Your task to perform on an android device: change keyboard looks Image 0: 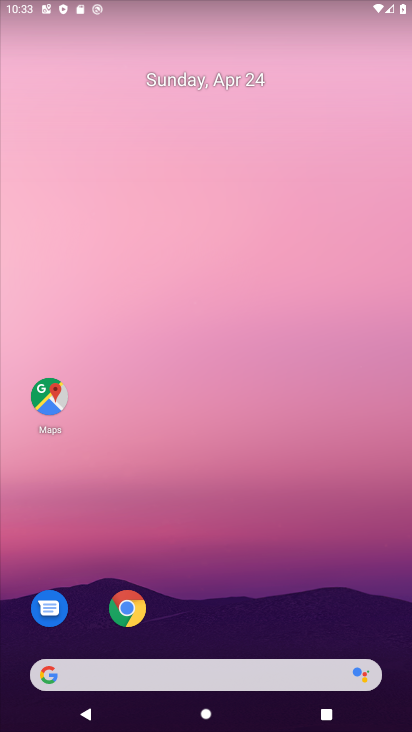
Step 0: drag from (214, 584) to (166, 21)
Your task to perform on an android device: change keyboard looks Image 1: 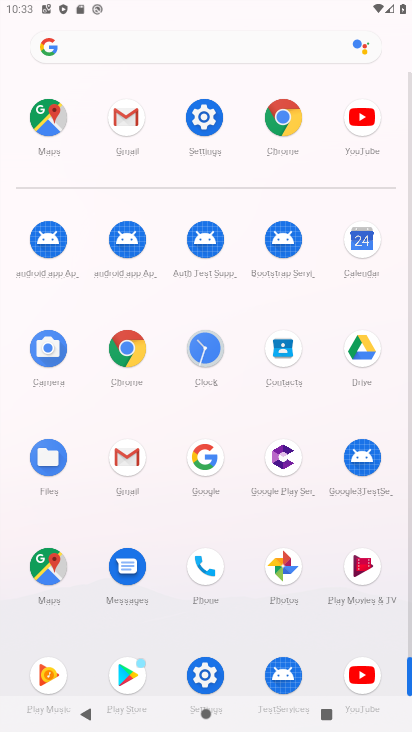
Step 1: drag from (5, 524) to (1, 235)
Your task to perform on an android device: change keyboard looks Image 2: 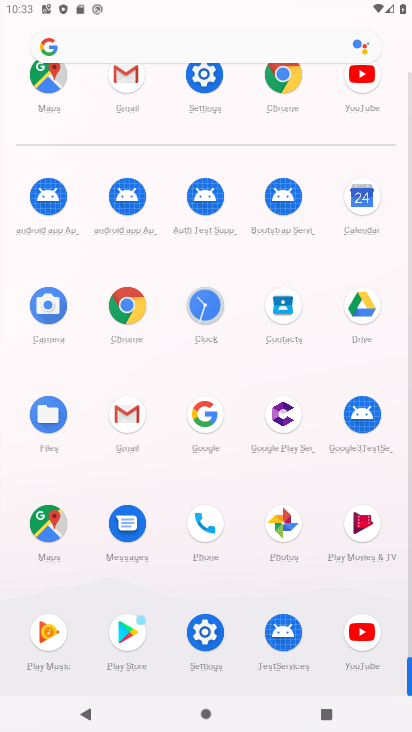
Step 2: drag from (15, 577) to (10, 352)
Your task to perform on an android device: change keyboard looks Image 3: 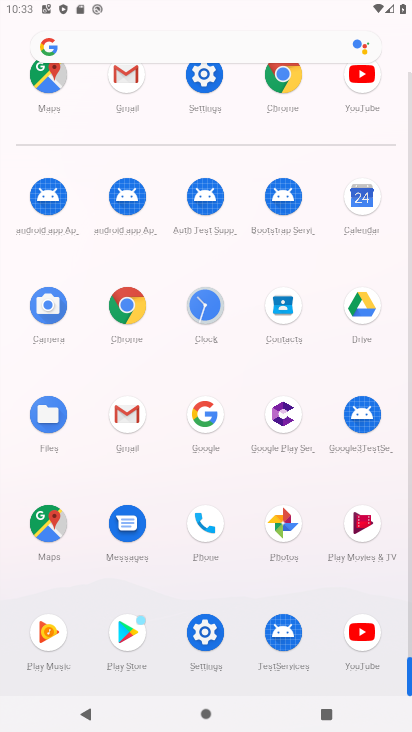
Step 3: click (205, 78)
Your task to perform on an android device: change keyboard looks Image 4: 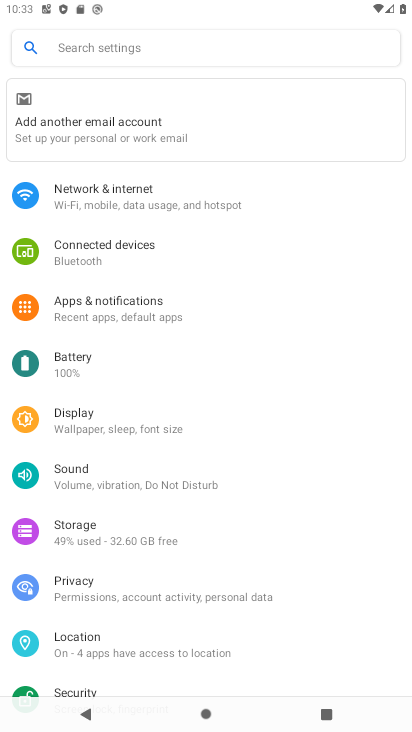
Step 4: drag from (183, 576) to (205, 218)
Your task to perform on an android device: change keyboard looks Image 5: 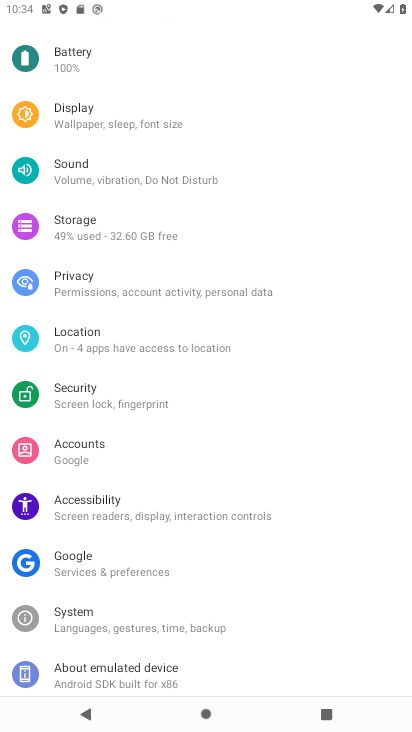
Step 5: drag from (207, 398) to (247, 15)
Your task to perform on an android device: change keyboard looks Image 6: 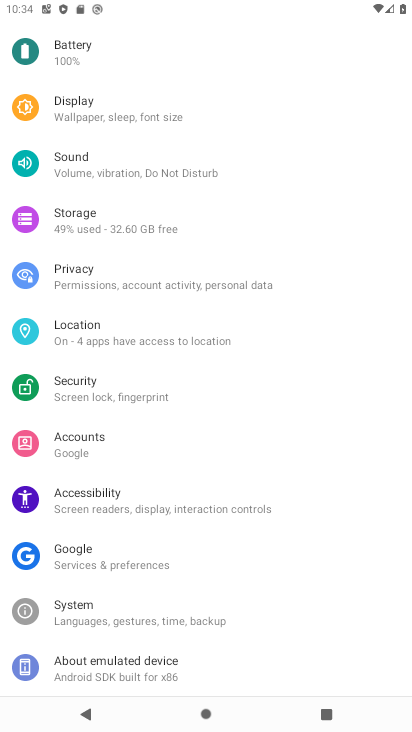
Step 6: drag from (217, 496) to (237, 125)
Your task to perform on an android device: change keyboard looks Image 7: 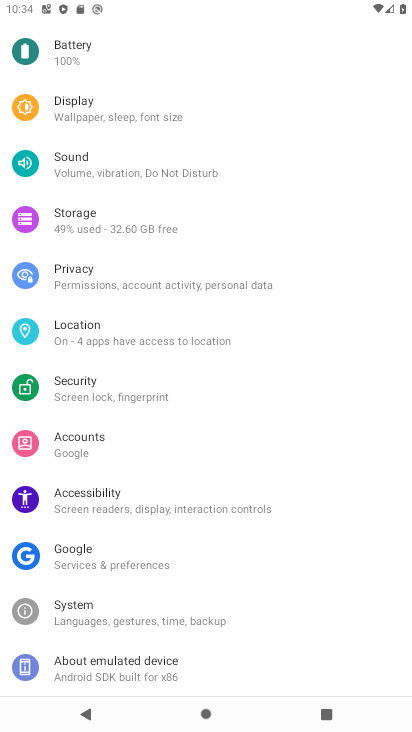
Step 7: drag from (236, 151) to (202, 490)
Your task to perform on an android device: change keyboard looks Image 8: 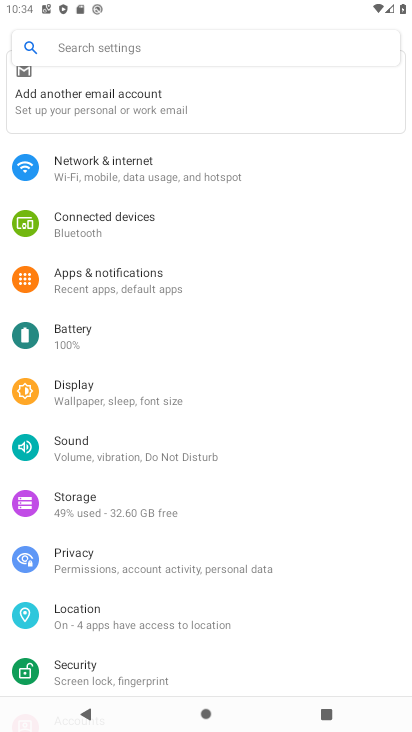
Step 8: drag from (209, 116) to (203, 556)
Your task to perform on an android device: change keyboard looks Image 9: 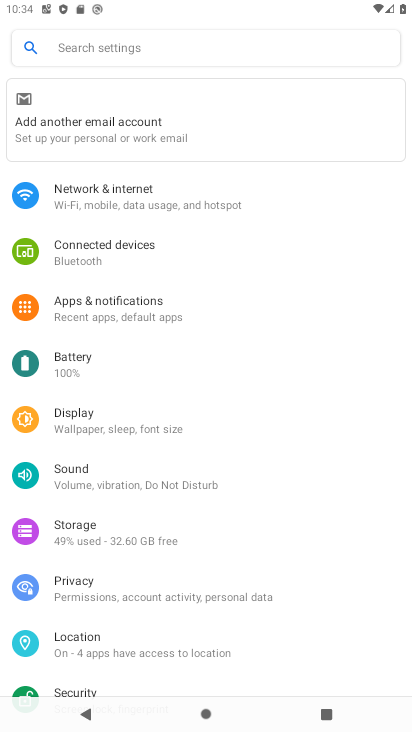
Step 9: drag from (230, 451) to (227, 148)
Your task to perform on an android device: change keyboard looks Image 10: 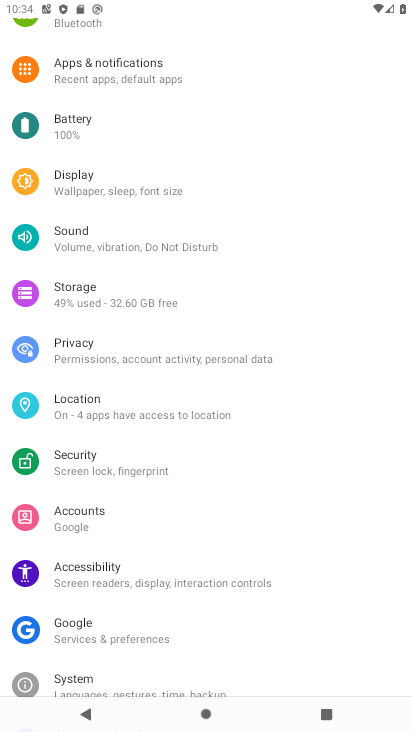
Step 10: click (120, 675)
Your task to perform on an android device: change keyboard looks Image 11: 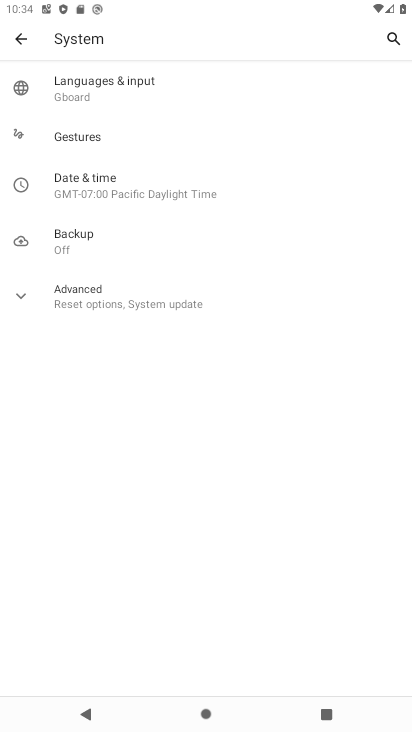
Step 11: click (140, 91)
Your task to perform on an android device: change keyboard looks Image 12: 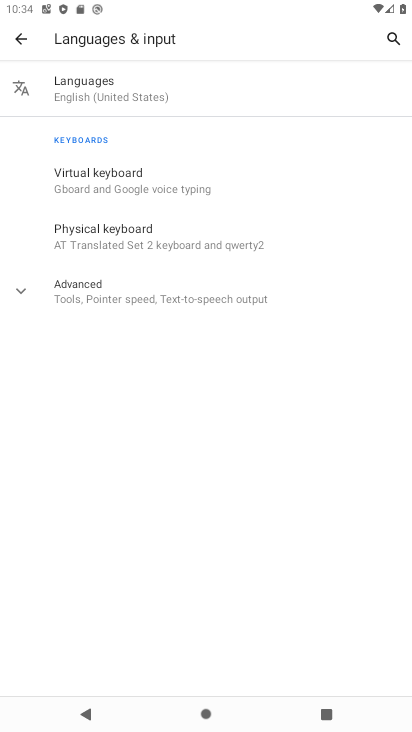
Step 12: click (132, 177)
Your task to perform on an android device: change keyboard looks Image 13: 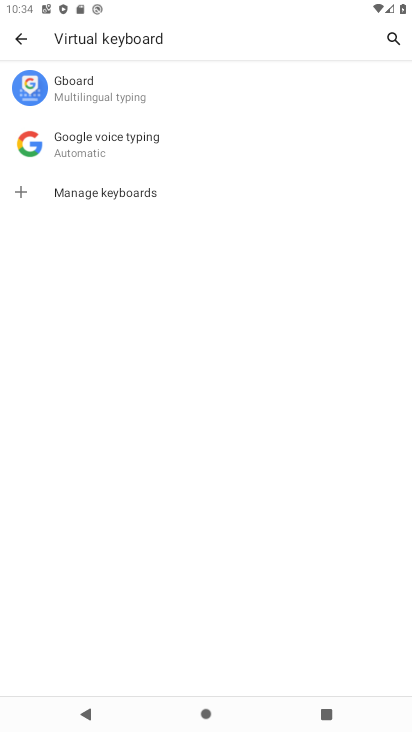
Step 13: click (126, 90)
Your task to perform on an android device: change keyboard looks Image 14: 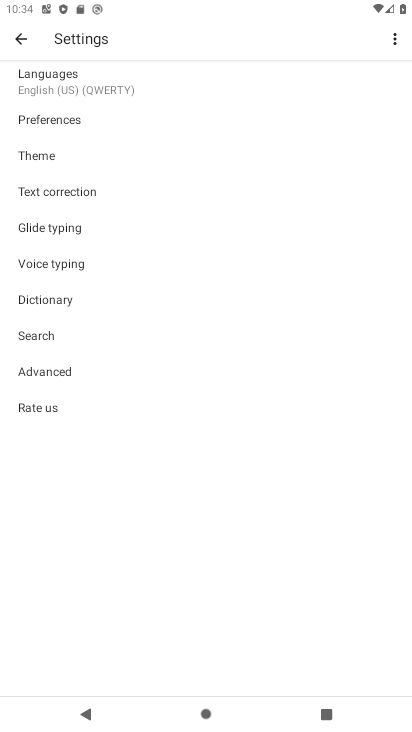
Step 14: click (68, 152)
Your task to perform on an android device: change keyboard looks Image 15: 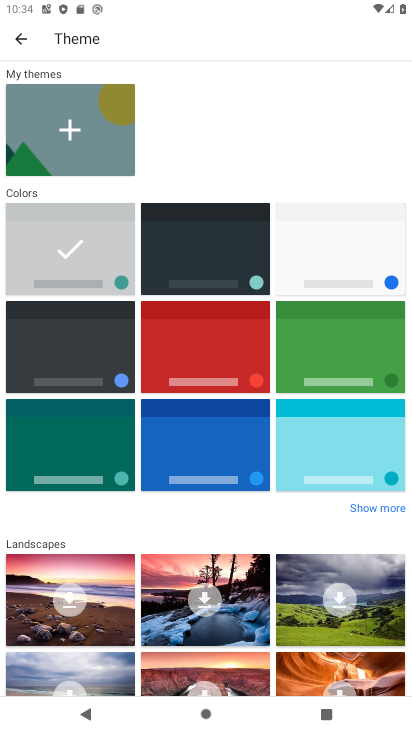
Step 15: click (338, 487)
Your task to perform on an android device: change keyboard looks Image 16: 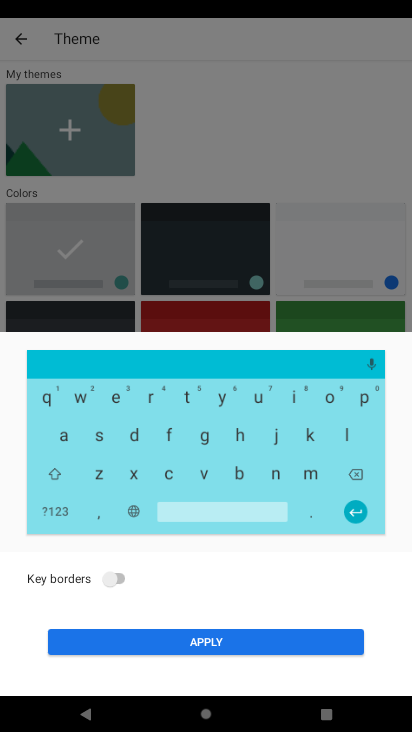
Step 16: click (236, 637)
Your task to perform on an android device: change keyboard looks Image 17: 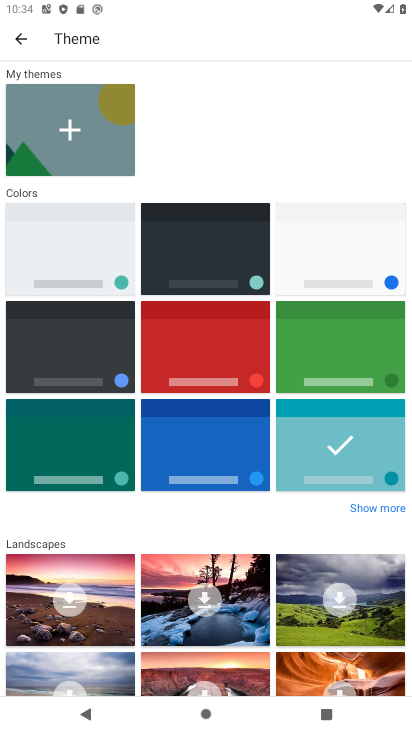
Step 17: task complete